Your task to perform on an android device: Open Amazon Image 0: 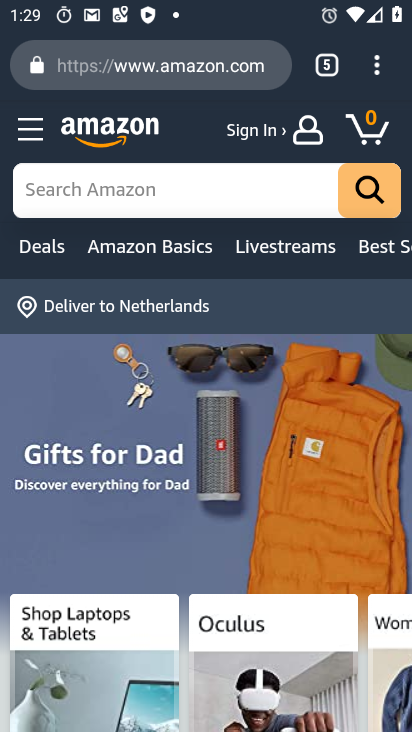
Step 0: press home button
Your task to perform on an android device: Open Amazon Image 1: 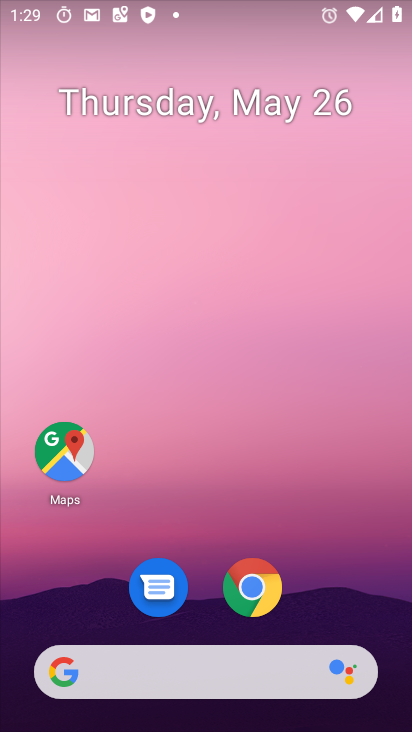
Step 1: drag from (311, 699) to (329, 245)
Your task to perform on an android device: Open Amazon Image 2: 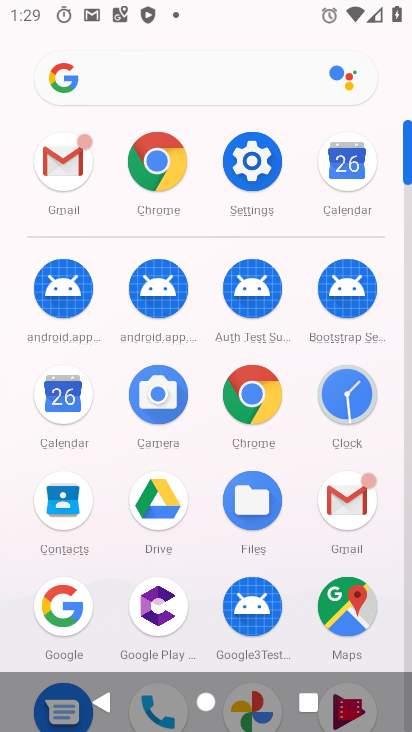
Step 2: click (160, 144)
Your task to perform on an android device: Open Amazon Image 3: 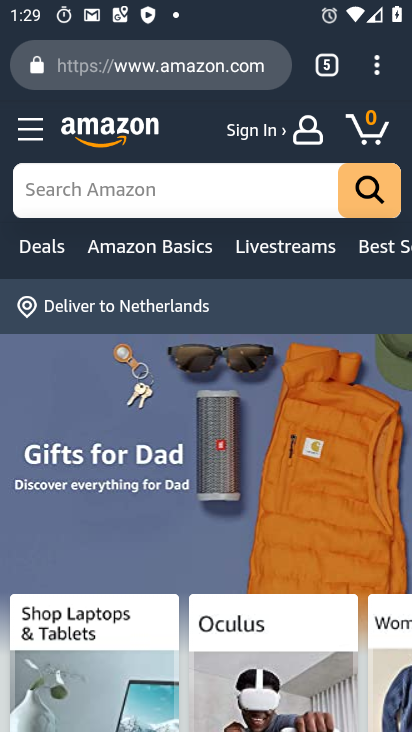
Step 3: click (213, 72)
Your task to perform on an android device: Open Amazon Image 4: 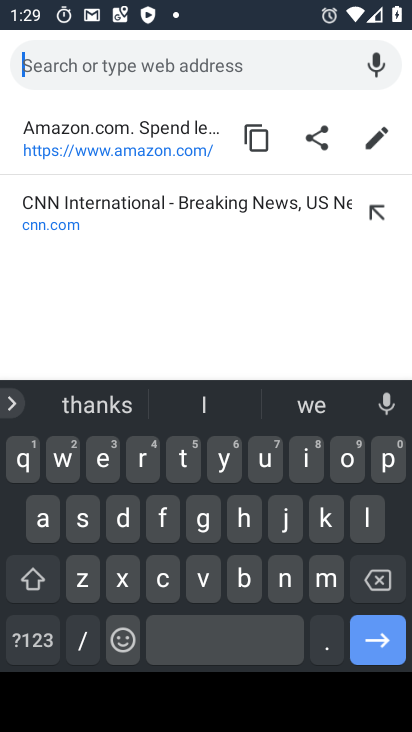
Step 4: click (98, 152)
Your task to perform on an android device: Open Amazon Image 5: 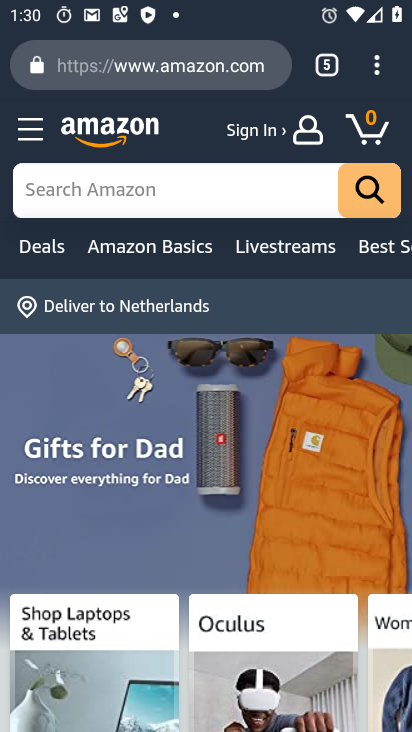
Step 5: task complete